Your task to perform on an android device: stop showing notifications on the lock screen Image 0: 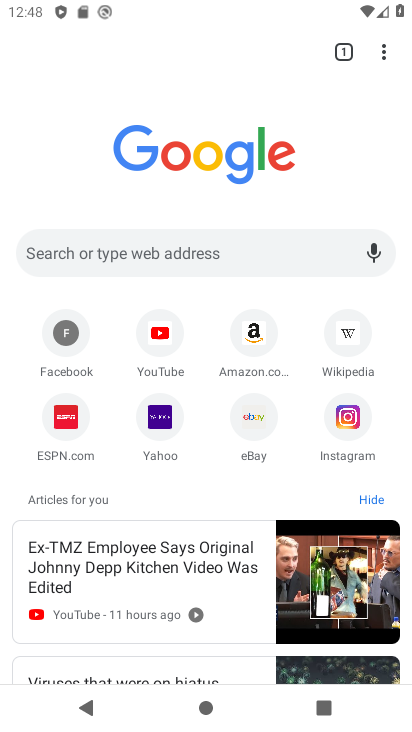
Step 0: press home button
Your task to perform on an android device: stop showing notifications on the lock screen Image 1: 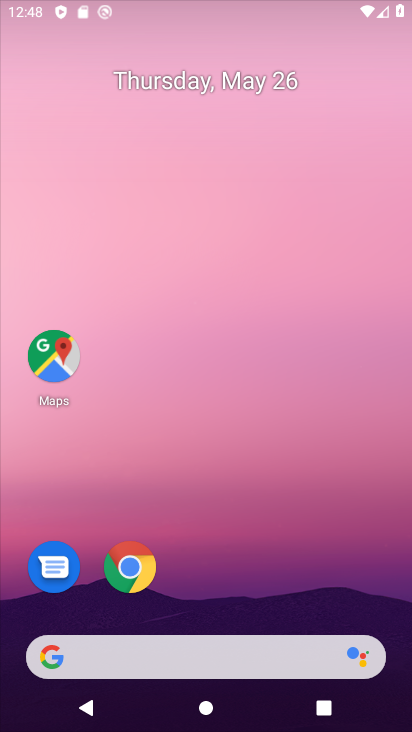
Step 1: drag from (262, 545) to (250, 141)
Your task to perform on an android device: stop showing notifications on the lock screen Image 2: 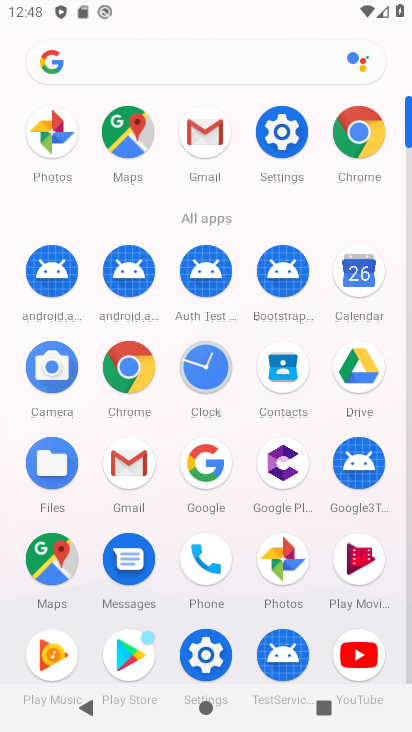
Step 2: click (285, 131)
Your task to perform on an android device: stop showing notifications on the lock screen Image 3: 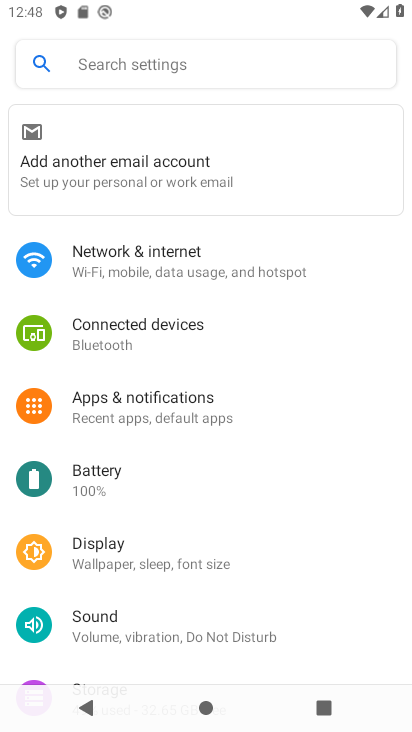
Step 3: click (152, 400)
Your task to perform on an android device: stop showing notifications on the lock screen Image 4: 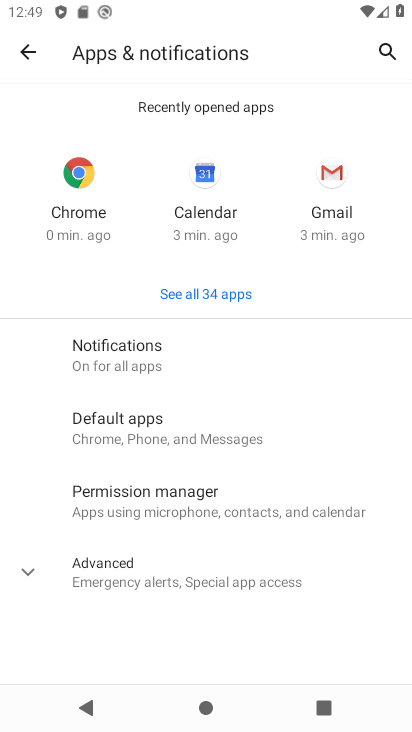
Step 4: click (179, 368)
Your task to perform on an android device: stop showing notifications on the lock screen Image 5: 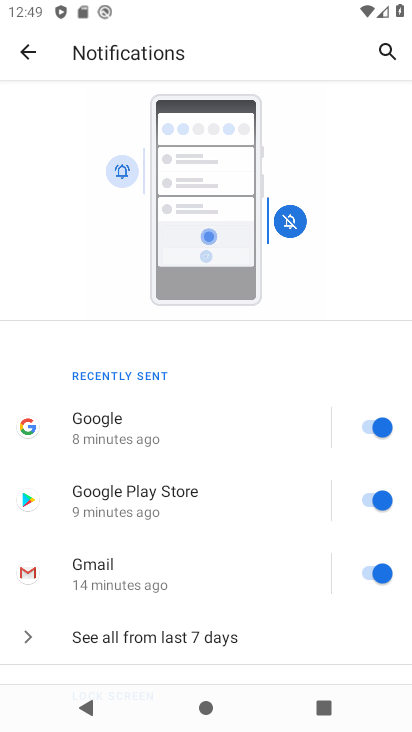
Step 5: drag from (195, 593) to (214, 148)
Your task to perform on an android device: stop showing notifications on the lock screen Image 6: 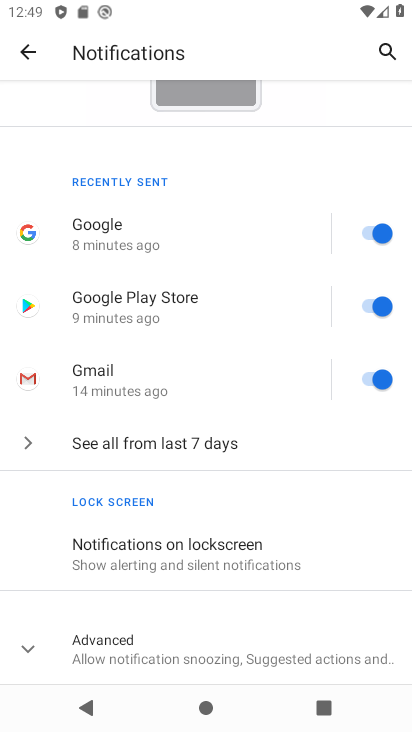
Step 6: click (177, 557)
Your task to perform on an android device: stop showing notifications on the lock screen Image 7: 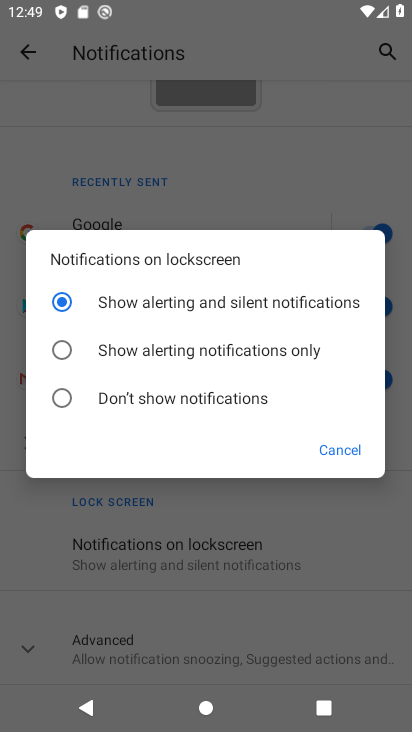
Step 7: click (67, 390)
Your task to perform on an android device: stop showing notifications on the lock screen Image 8: 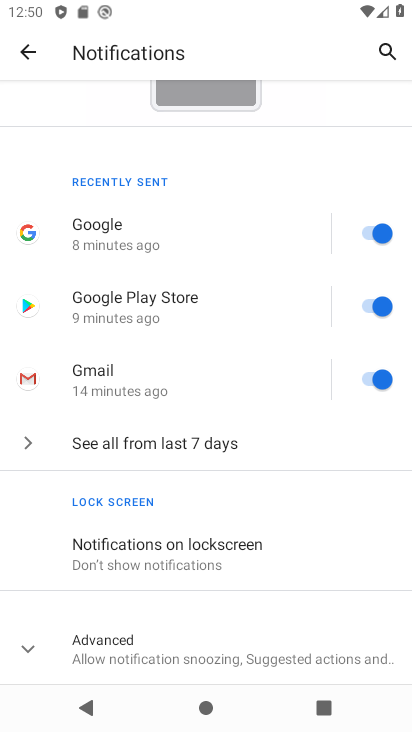
Step 8: task complete